Your task to perform on an android device: Open Google Chrome Image 0: 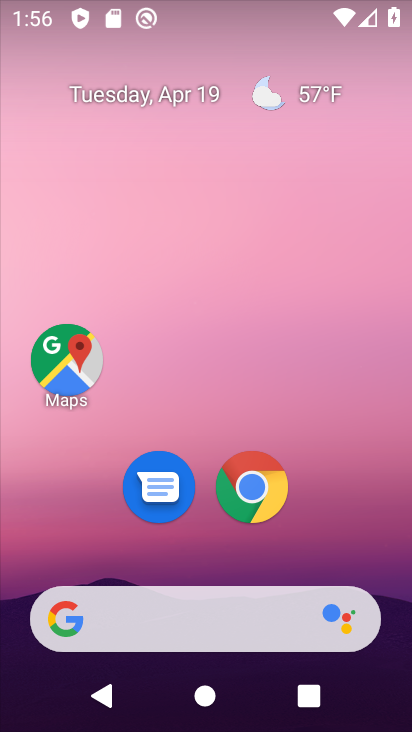
Step 0: click (242, 502)
Your task to perform on an android device: Open Google Chrome Image 1: 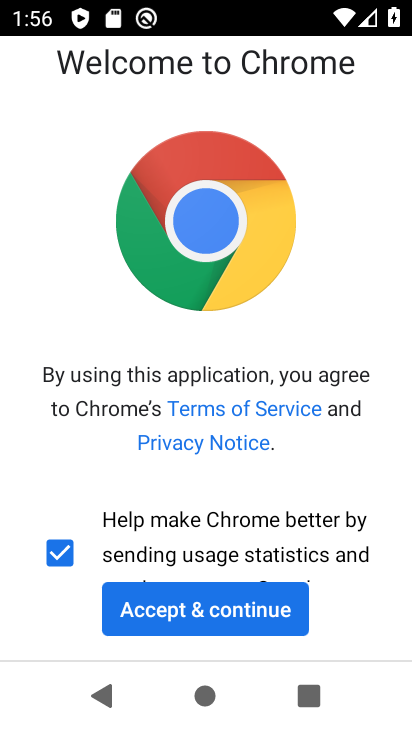
Step 1: click (185, 619)
Your task to perform on an android device: Open Google Chrome Image 2: 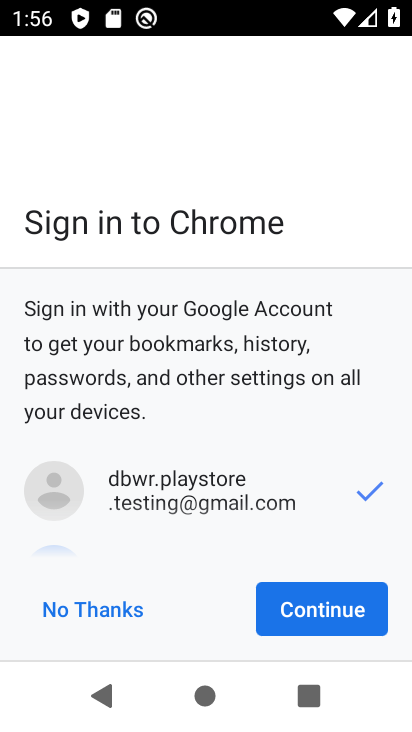
Step 2: click (346, 617)
Your task to perform on an android device: Open Google Chrome Image 3: 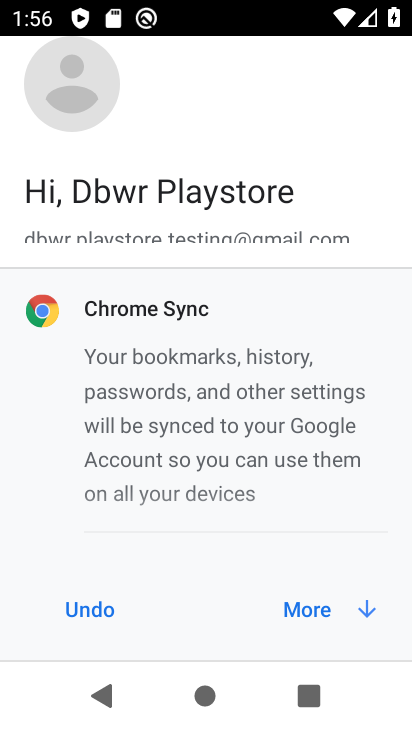
Step 3: click (346, 617)
Your task to perform on an android device: Open Google Chrome Image 4: 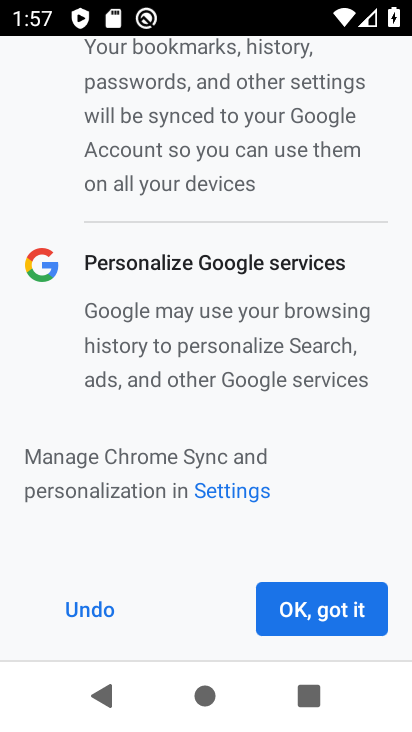
Step 4: click (346, 617)
Your task to perform on an android device: Open Google Chrome Image 5: 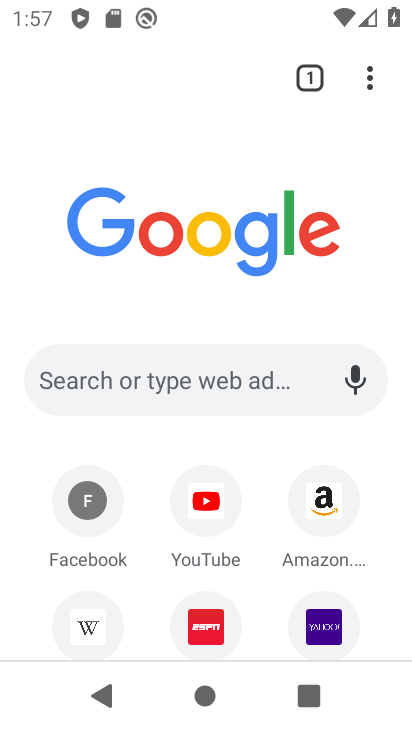
Step 5: task complete